Your task to perform on an android device: allow notifications from all sites in the chrome app Image 0: 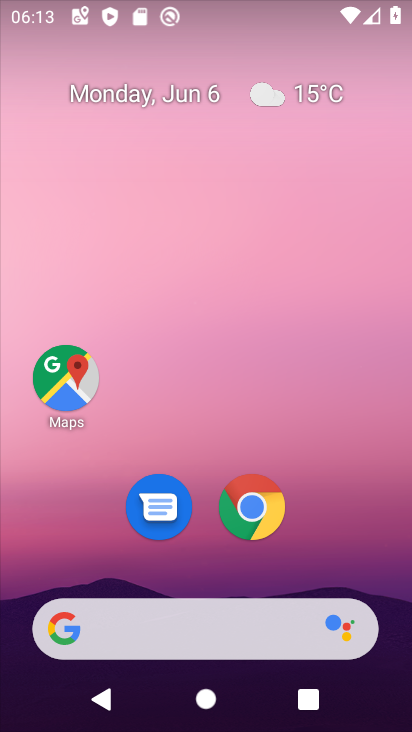
Step 0: press home button
Your task to perform on an android device: allow notifications from all sites in the chrome app Image 1: 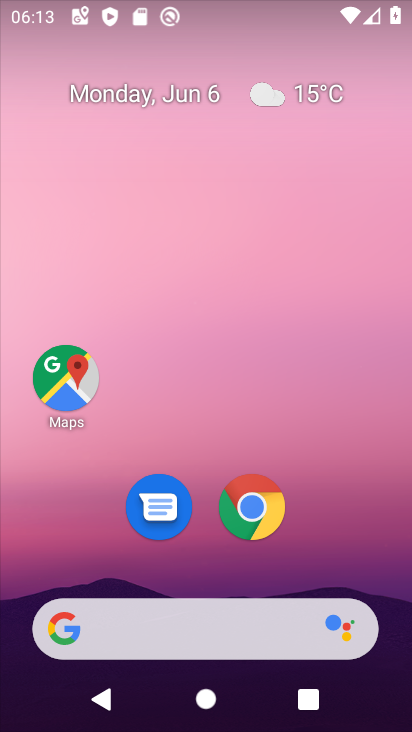
Step 1: drag from (203, 572) to (237, 5)
Your task to perform on an android device: allow notifications from all sites in the chrome app Image 2: 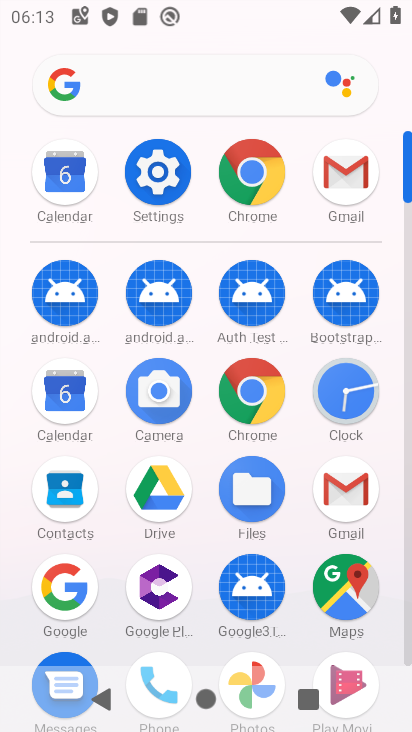
Step 2: click (259, 169)
Your task to perform on an android device: allow notifications from all sites in the chrome app Image 3: 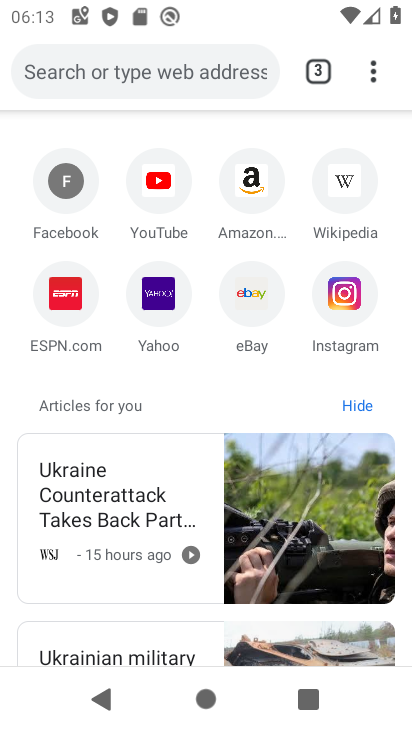
Step 3: click (370, 70)
Your task to perform on an android device: allow notifications from all sites in the chrome app Image 4: 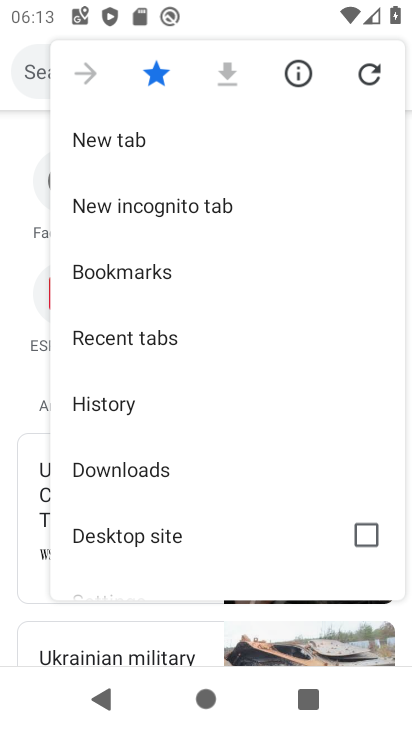
Step 4: drag from (118, 492) to (152, 19)
Your task to perform on an android device: allow notifications from all sites in the chrome app Image 5: 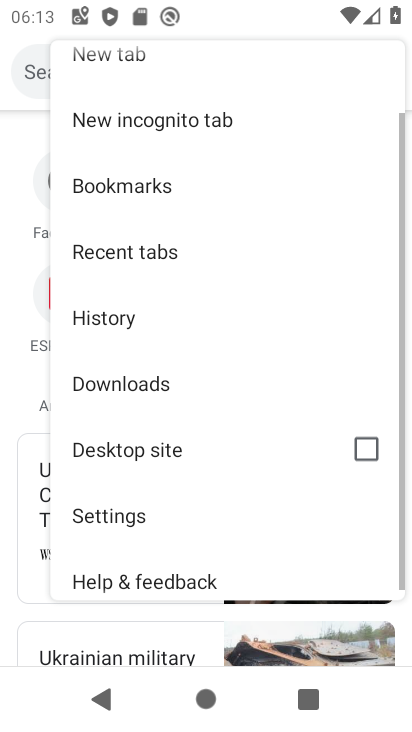
Step 5: click (116, 506)
Your task to perform on an android device: allow notifications from all sites in the chrome app Image 6: 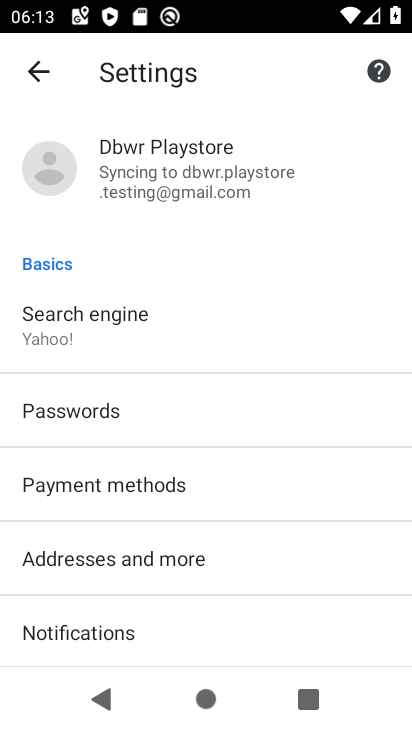
Step 6: drag from (82, 573) to (81, 82)
Your task to perform on an android device: allow notifications from all sites in the chrome app Image 7: 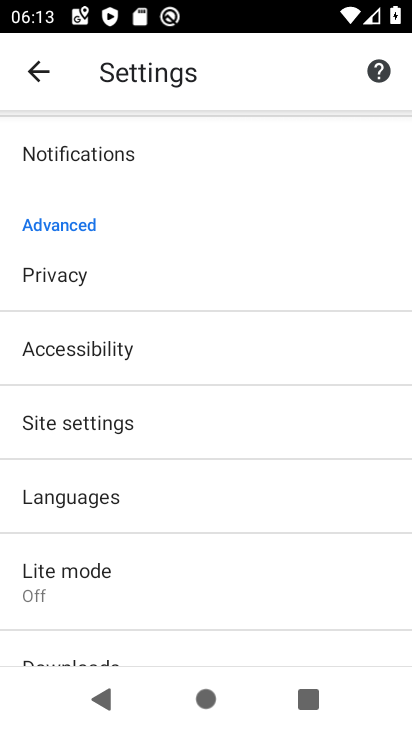
Step 7: click (100, 418)
Your task to perform on an android device: allow notifications from all sites in the chrome app Image 8: 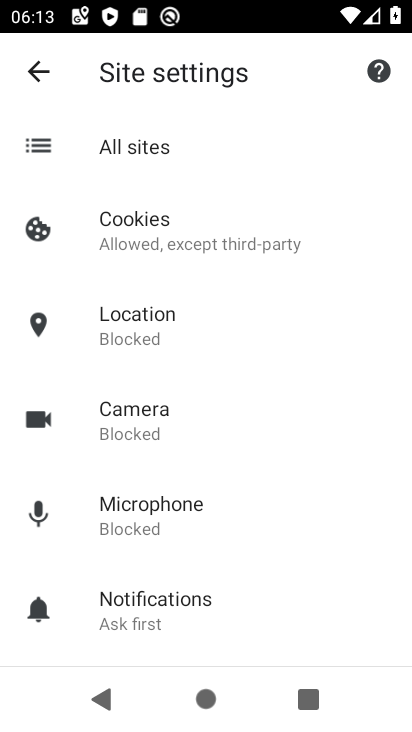
Step 8: click (135, 154)
Your task to perform on an android device: allow notifications from all sites in the chrome app Image 9: 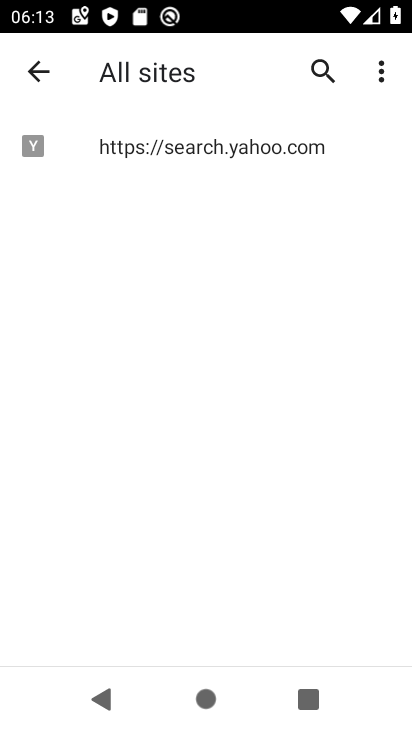
Step 9: click (141, 152)
Your task to perform on an android device: allow notifications from all sites in the chrome app Image 10: 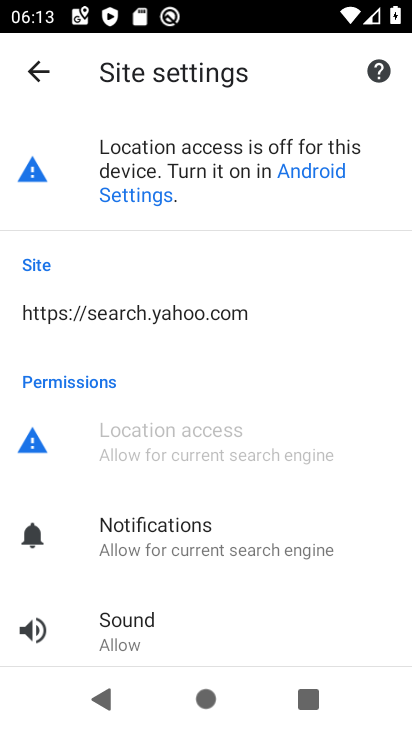
Step 10: click (156, 546)
Your task to perform on an android device: allow notifications from all sites in the chrome app Image 11: 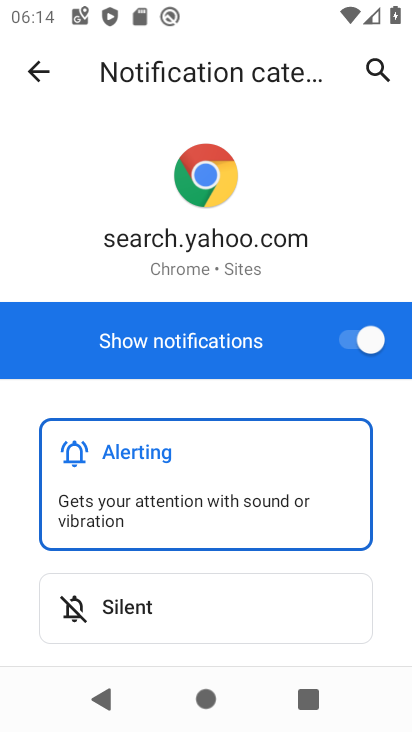
Step 11: task complete